Your task to perform on an android device: Go to battery settings Image 0: 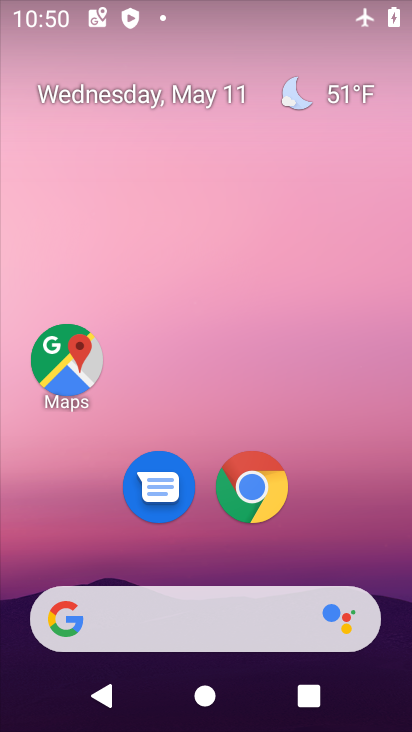
Step 0: drag from (361, 498) to (231, 51)
Your task to perform on an android device: Go to battery settings Image 1: 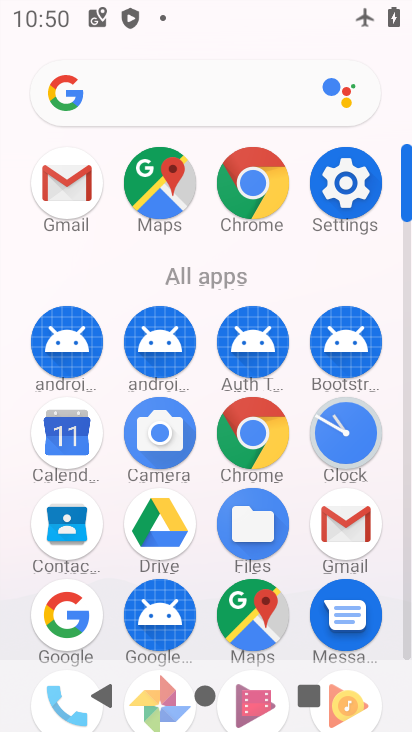
Step 1: click (345, 205)
Your task to perform on an android device: Go to battery settings Image 2: 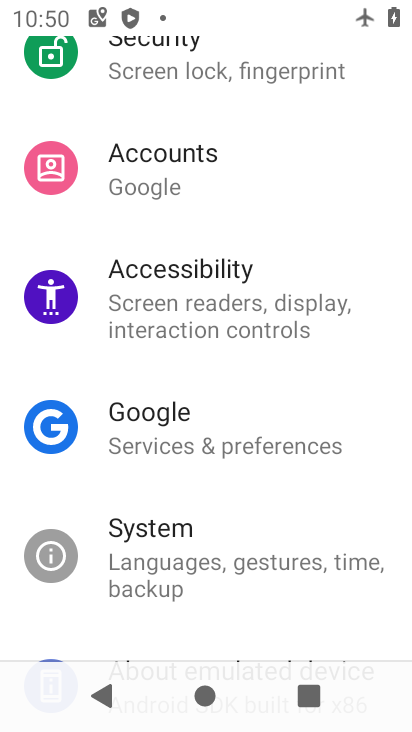
Step 2: drag from (292, 511) to (244, 223)
Your task to perform on an android device: Go to battery settings Image 3: 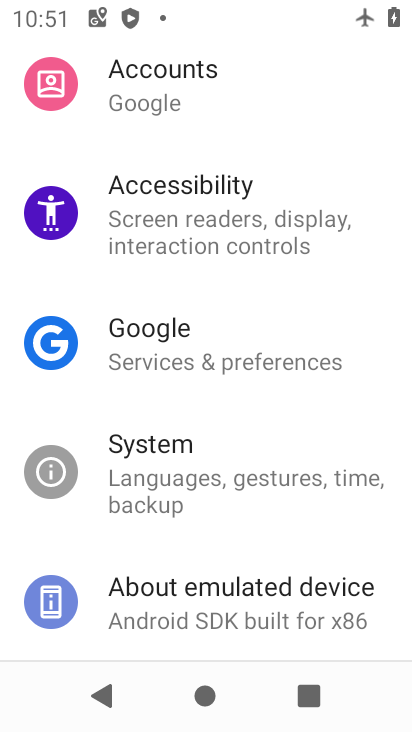
Step 3: drag from (267, 508) to (203, 214)
Your task to perform on an android device: Go to battery settings Image 4: 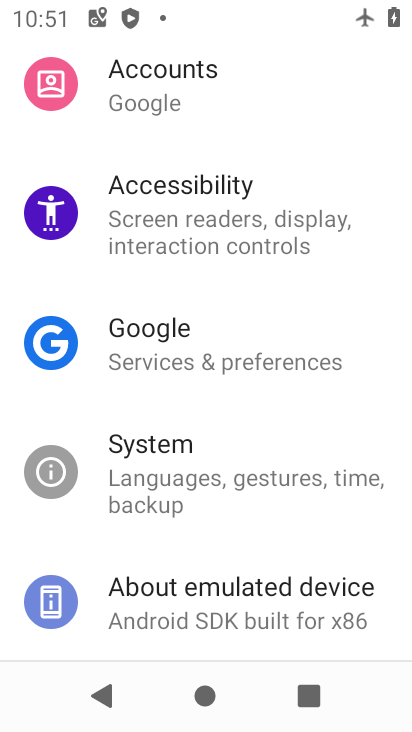
Step 4: drag from (207, 94) to (231, 417)
Your task to perform on an android device: Go to battery settings Image 5: 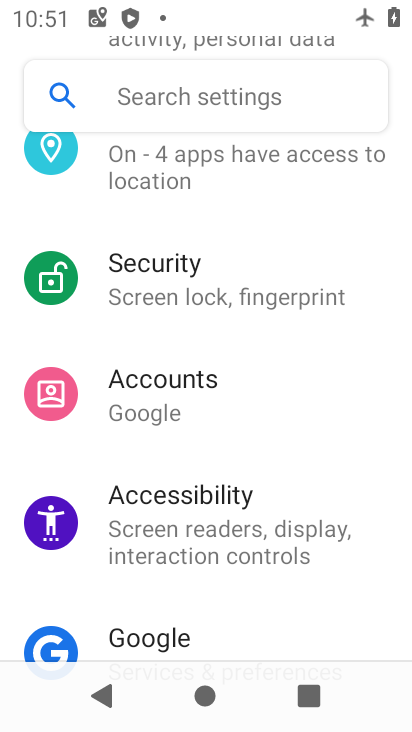
Step 5: drag from (204, 228) to (207, 473)
Your task to perform on an android device: Go to battery settings Image 6: 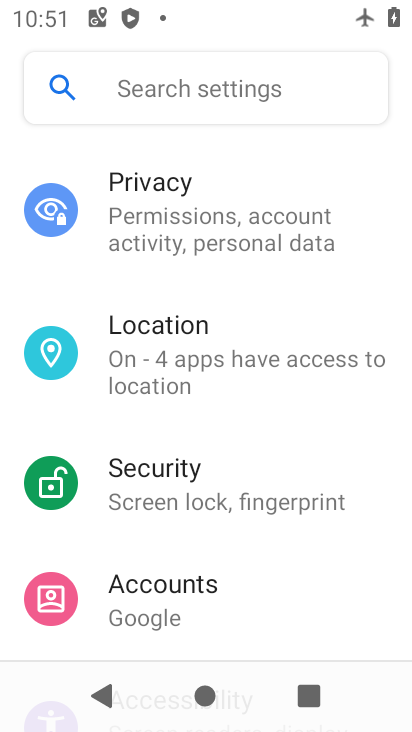
Step 6: drag from (193, 287) to (218, 596)
Your task to perform on an android device: Go to battery settings Image 7: 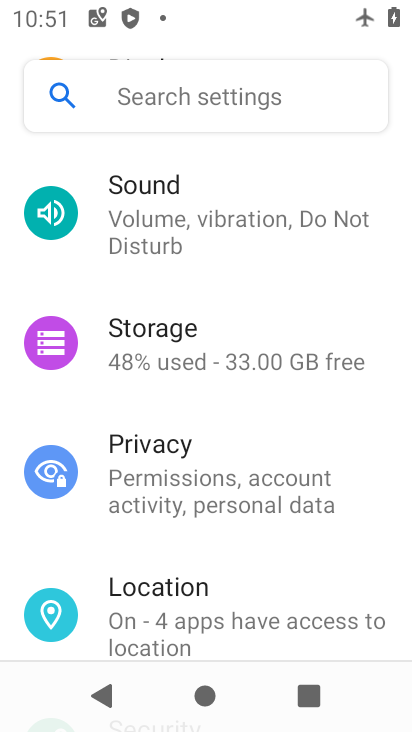
Step 7: drag from (228, 284) to (218, 651)
Your task to perform on an android device: Go to battery settings Image 8: 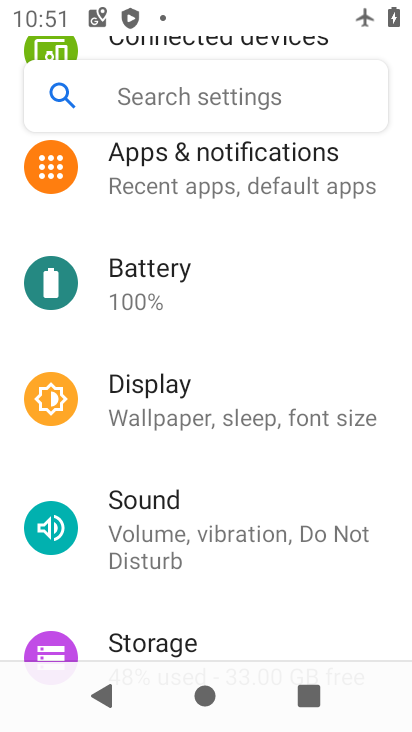
Step 8: click (154, 297)
Your task to perform on an android device: Go to battery settings Image 9: 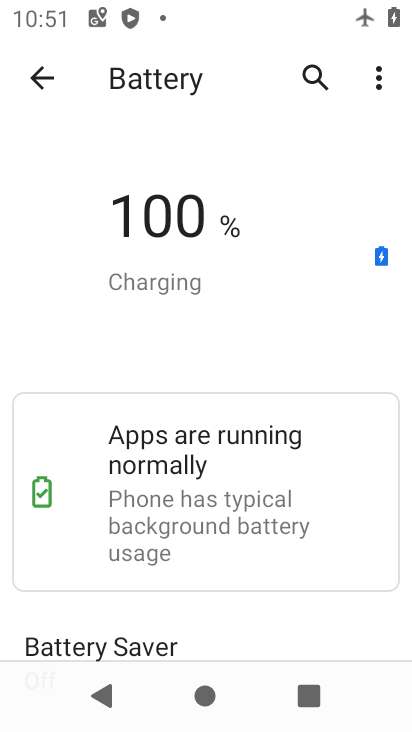
Step 9: task complete